Your task to perform on an android device: Search for "razer huntsman" on ebay, select the first entry, add it to the cart, then select checkout. Image 0: 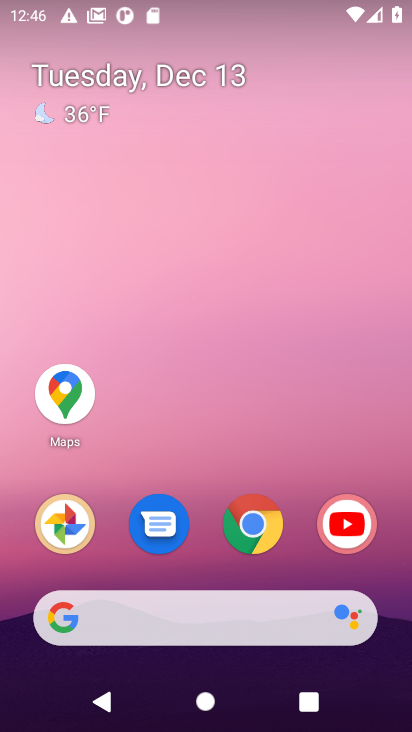
Step 0: click (260, 530)
Your task to perform on an android device: Search for "razer huntsman" on ebay, select the first entry, add it to the cart, then select checkout. Image 1: 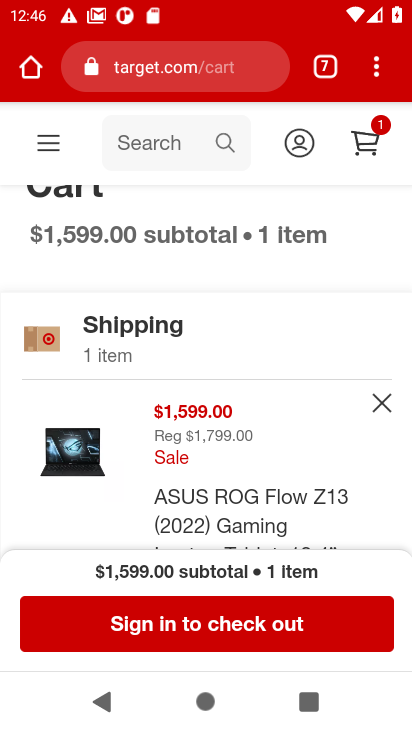
Step 1: click (118, 68)
Your task to perform on an android device: Search for "razer huntsman" on ebay, select the first entry, add it to the cart, then select checkout. Image 2: 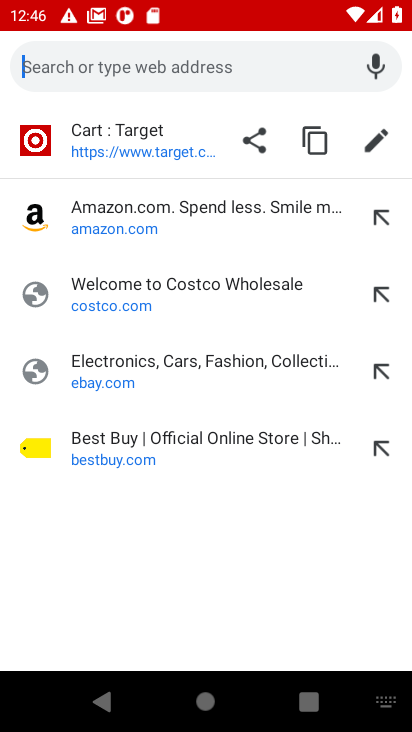
Step 2: click (75, 378)
Your task to perform on an android device: Search for "razer huntsman" on ebay, select the first entry, add it to the cart, then select checkout. Image 3: 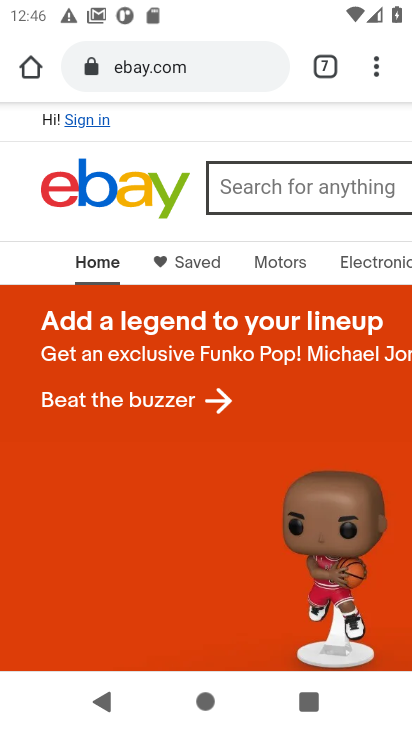
Step 3: click (238, 190)
Your task to perform on an android device: Search for "razer huntsman" on ebay, select the first entry, add it to the cart, then select checkout. Image 4: 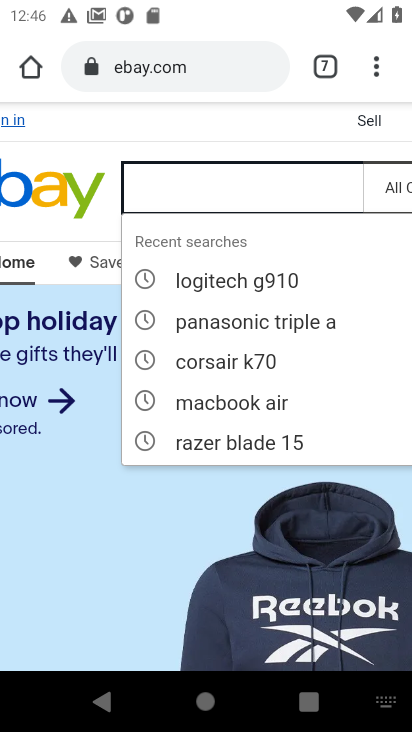
Step 4: type "razer huntsman"
Your task to perform on an android device: Search for "razer huntsman" on ebay, select the first entry, add it to the cart, then select checkout. Image 5: 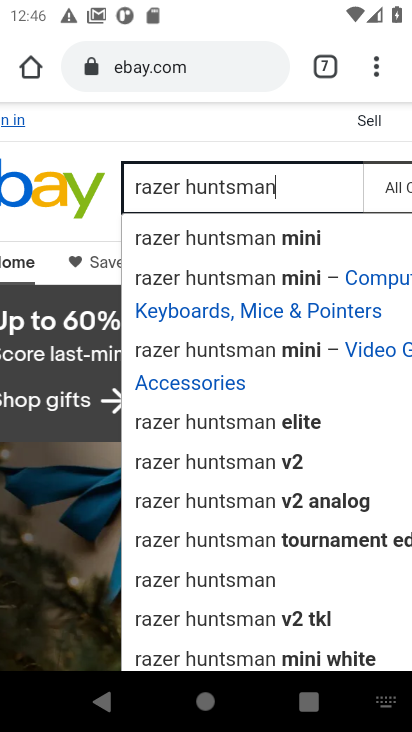
Step 5: click (199, 585)
Your task to perform on an android device: Search for "razer huntsman" on ebay, select the first entry, add it to the cart, then select checkout. Image 6: 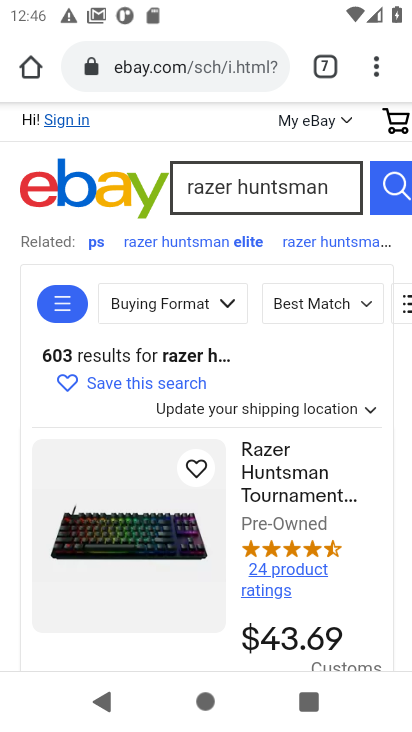
Step 6: drag from (248, 533) to (252, 399)
Your task to perform on an android device: Search for "razer huntsman" on ebay, select the first entry, add it to the cart, then select checkout. Image 7: 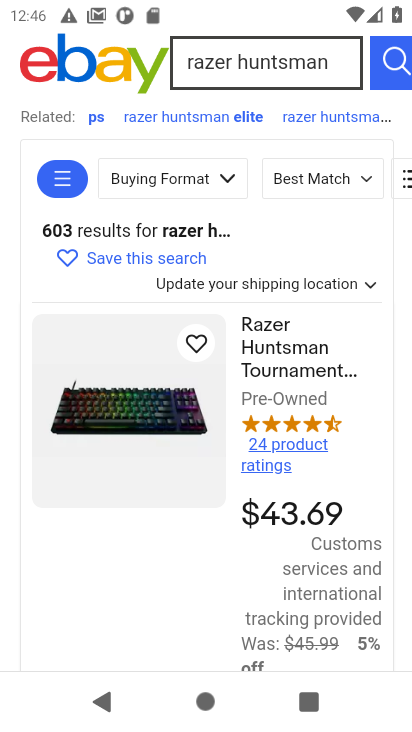
Step 7: click (263, 367)
Your task to perform on an android device: Search for "razer huntsman" on ebay, select the first entry, add it to the cart, then select checkout. Image 8: 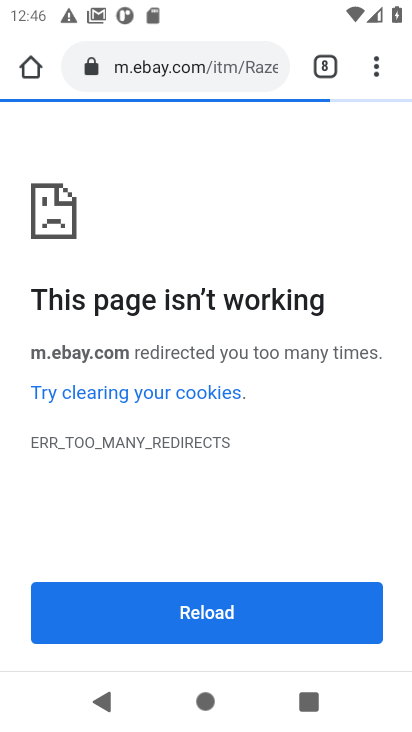
Step 8: task complete